Your task to perform on an android device: Open Google Chrome Image 0: 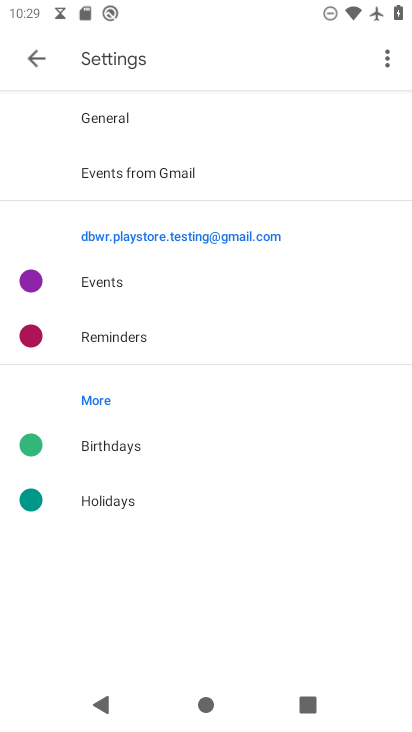
Step 0: press home button
Your task to perform on an android device: Open Google Chrome Image 1: 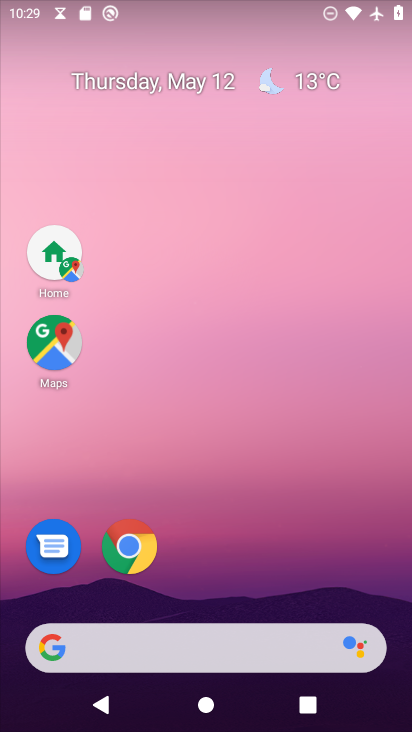
Step 1: click (145, 553)
Your task to perform on an android device: Open Google Chrome Image 2: 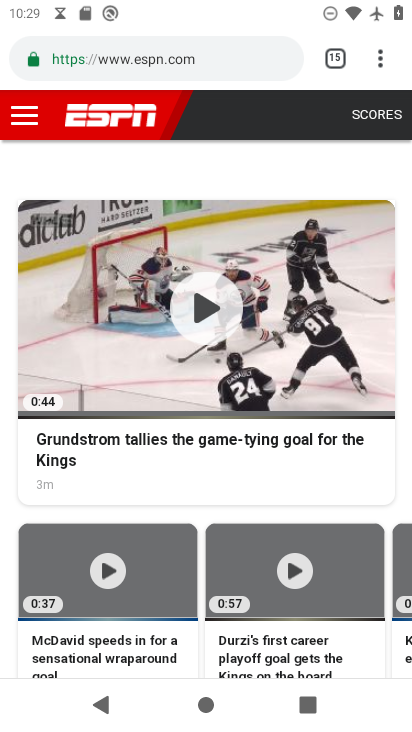
Step 2: task complete